Your task to perform on an android device: Go to internet settings Image 0: 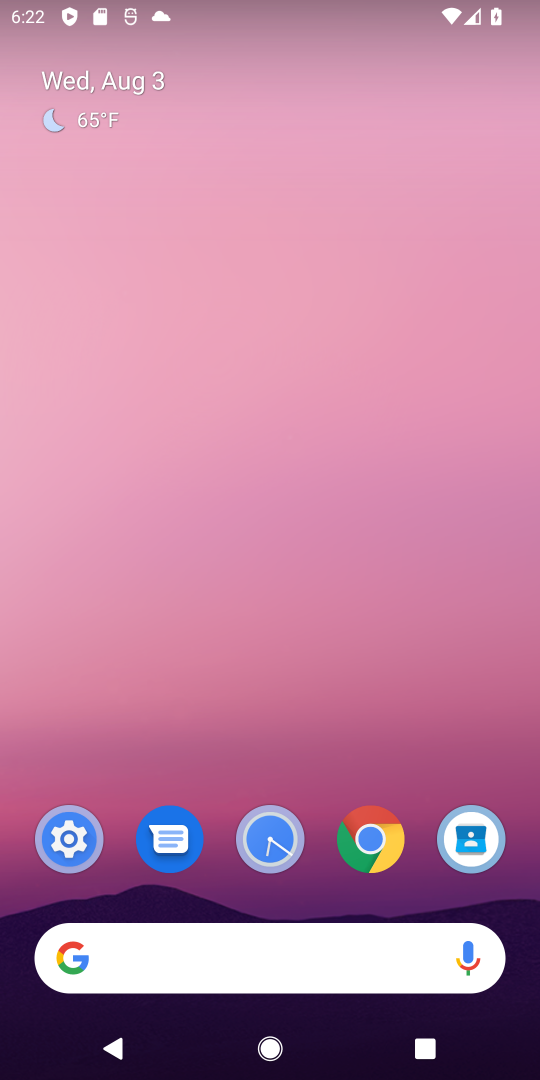
Step 0: click (46, 848)
Your task to perform on an android device: Go to internet settings Image 1: 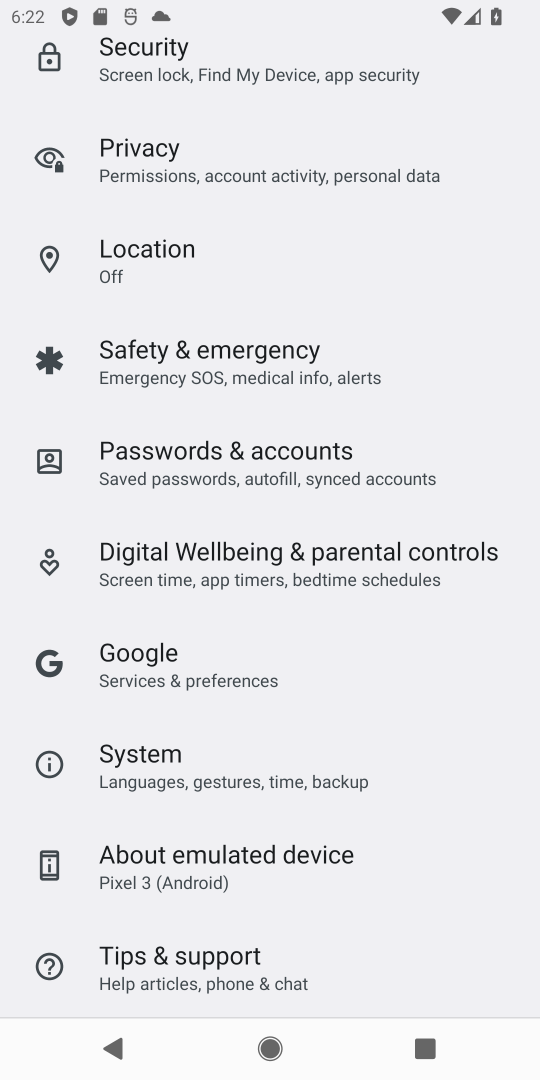
Step 1: drag from (350, 183) to (271, 1040)
Your task to perform on an android device: Go to internet settings Image 2: 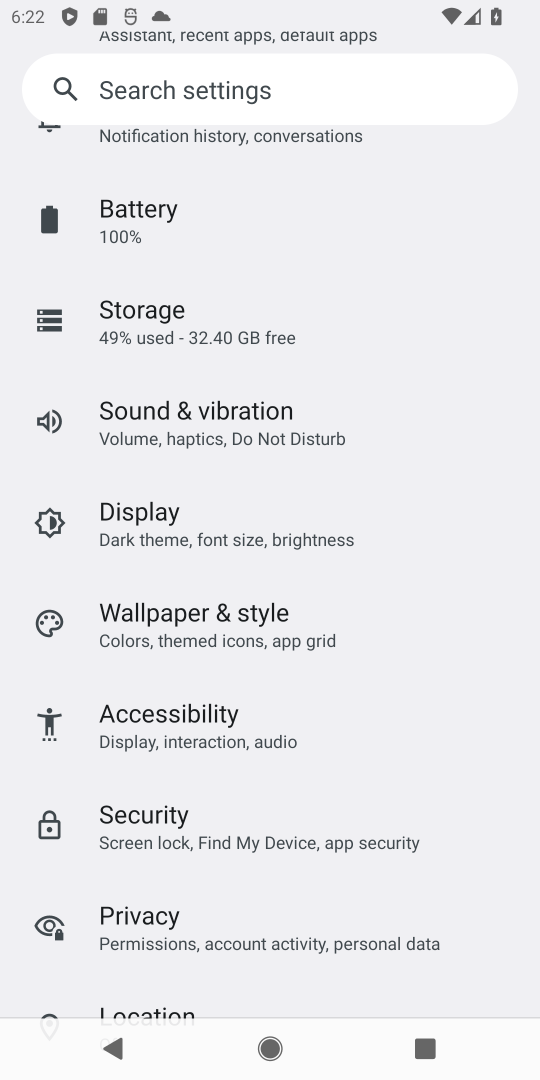
Step 2: drag from (295, 245) to (278, 1004)
Your task to perform on an android device: Go to internet settings Image 3: 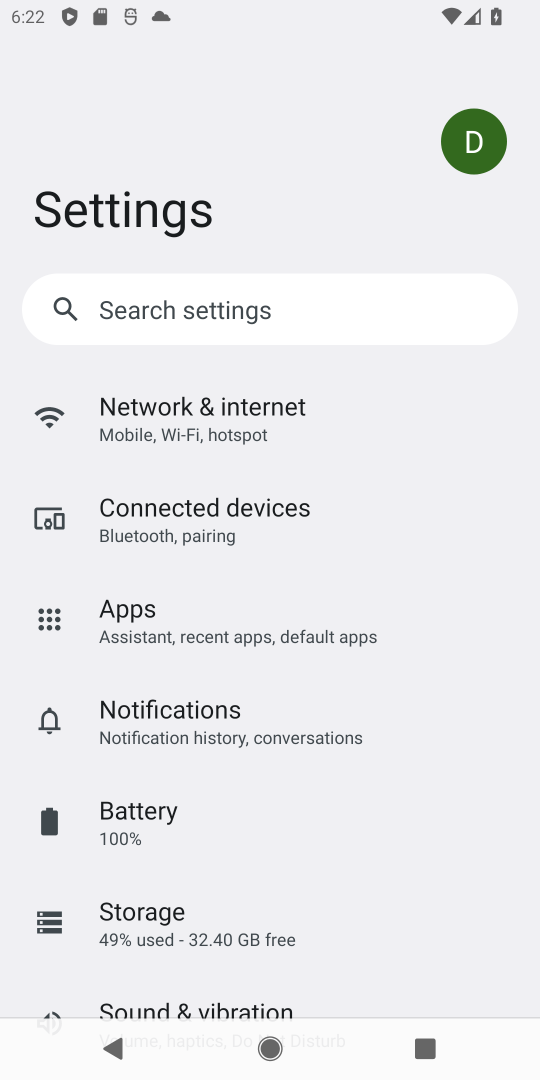
Step 3: click (266, 413)
Your task to perform on an android device: Go to internet settings Image 4: 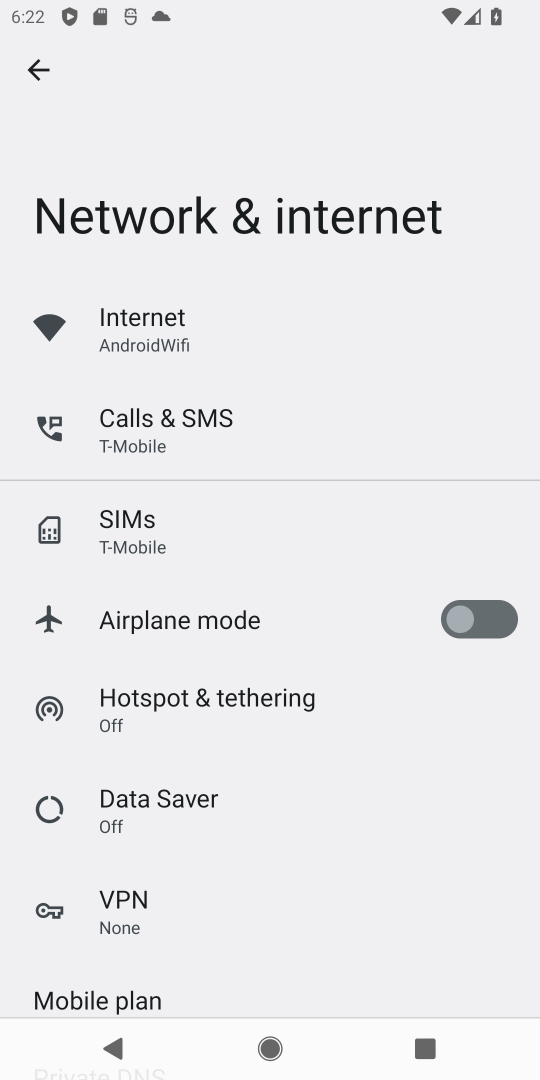
Step 4: task complete